Your task to perform on an android device: turn off wifi Image 0: 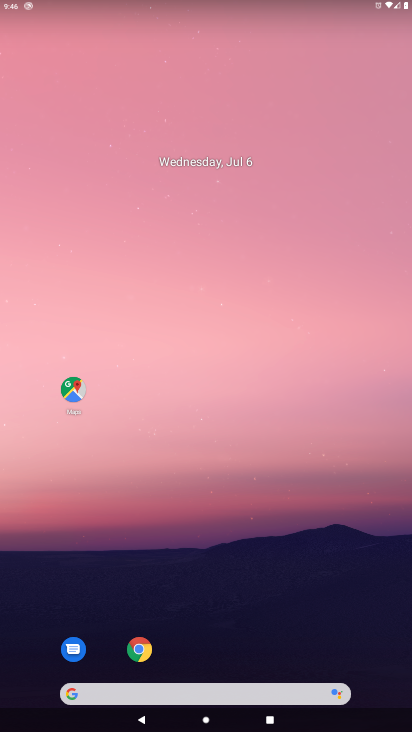
Step 0: drag from (245, 635) to (233, 159)
Your task to perform on an android device: turn off wifi Image 1: 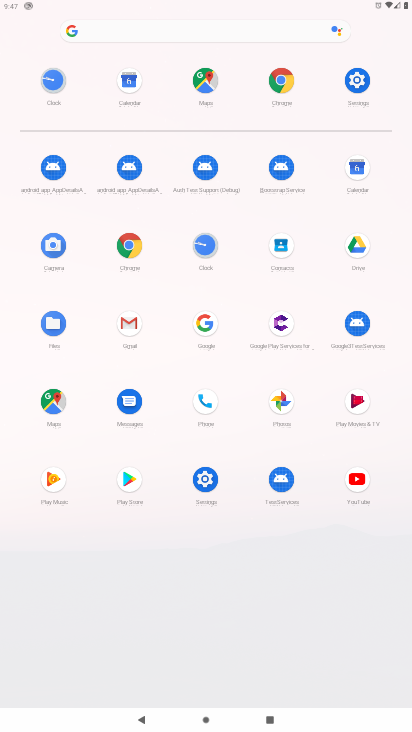
Step 1: click (354, 80)
Your task to perform on an android device: turn off wifi Image 2: 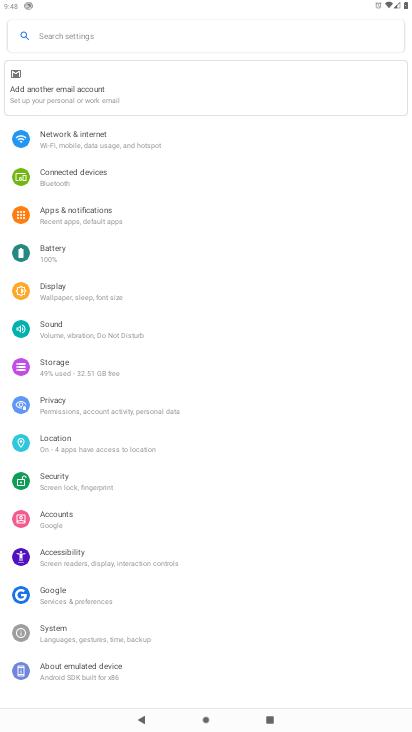
Step 2: click (115, 142)
Your task to perform on an android device: turn off wifi Image 3: 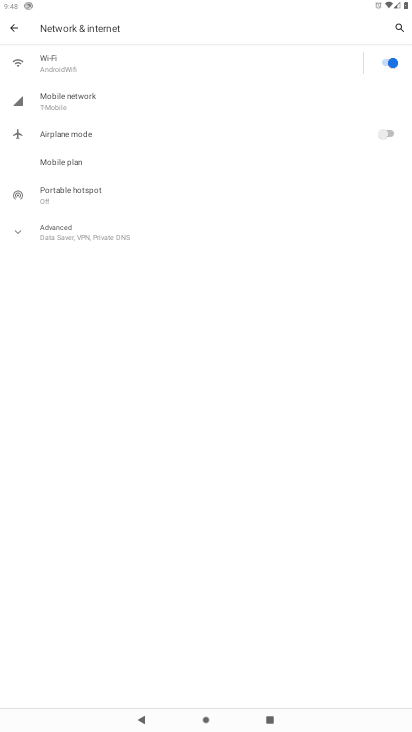
Step 3: click (378, 61)
Your task to perform on an android device: turn off wifi Image 4: 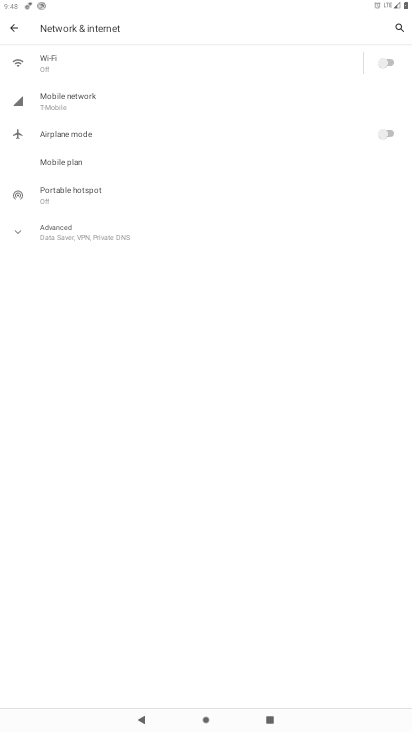
Step 4: task complete